Your task to perform on an android device: What's on my calendar tomorrow? Image 0: 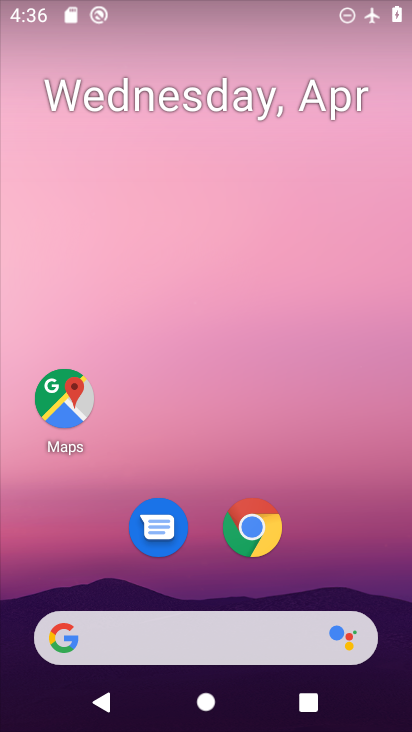
Step 0: drag from (367, 587) to (328, 10)
Your task to perform on an android device: What's on my calendar tomorrow? Image 1: 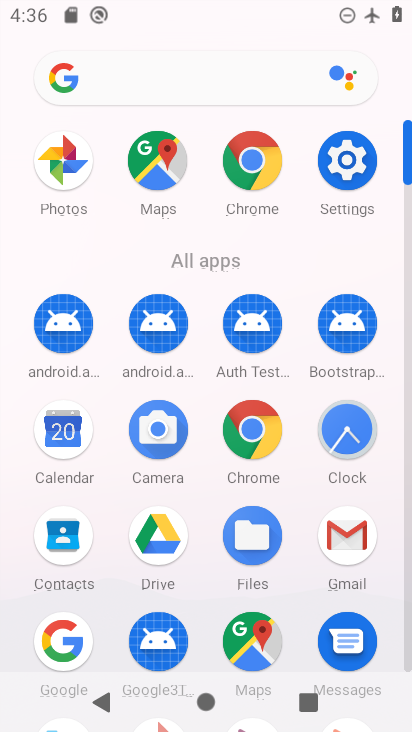
Step 1: click (64, 435)
Your task to perform on an android device: What's on my calendar tomorrow? Image 2: 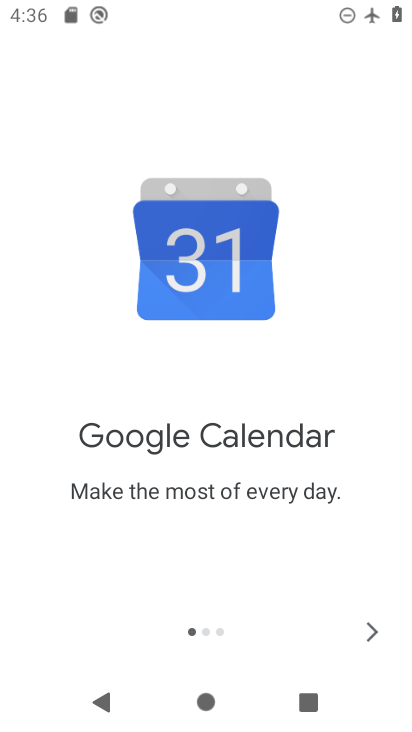
Step 2: click (372, 634)
Your task to perform on an android device: What's on my calendar tomorrow? Image 3: 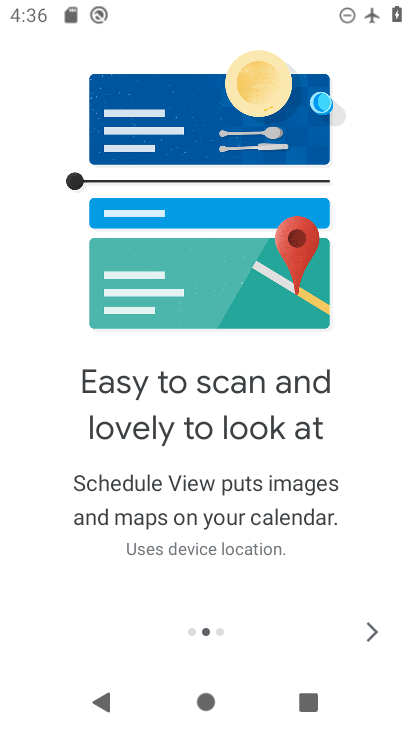
Step 3: click (372, 634)
Your task to perform on an android device: What's on my calendar tomorrow? Image 4: 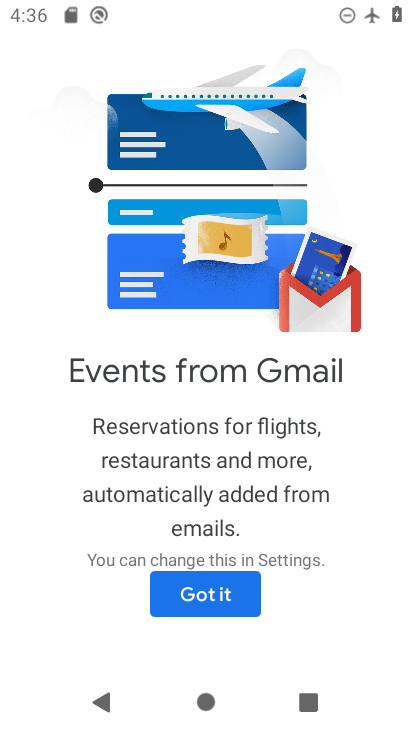
Step 4: click (216, 615)
Your task to perform on an android device: What's on my calendar tomorrow? Image 5: 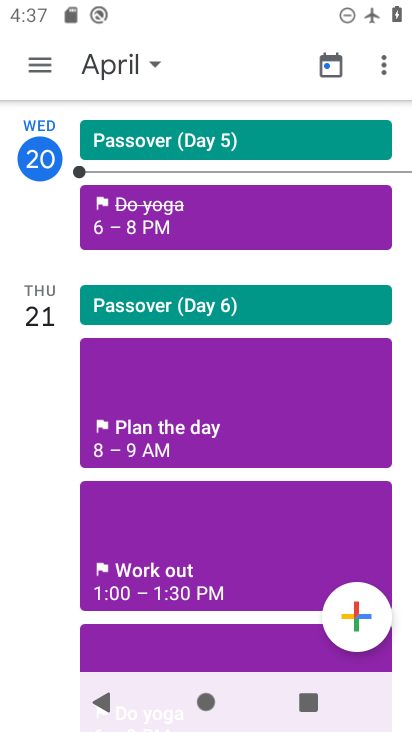
Step 5: click (171, 432)
Your task to perform on an android device: What's on my calendar tomorrow? Image 6: 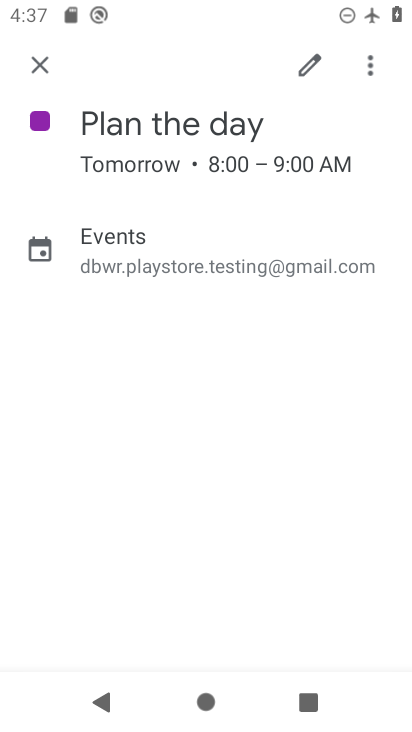
Step 6: task complete